Your task to perform on an android device: Search for sushi restaurants on Maps Image 0: 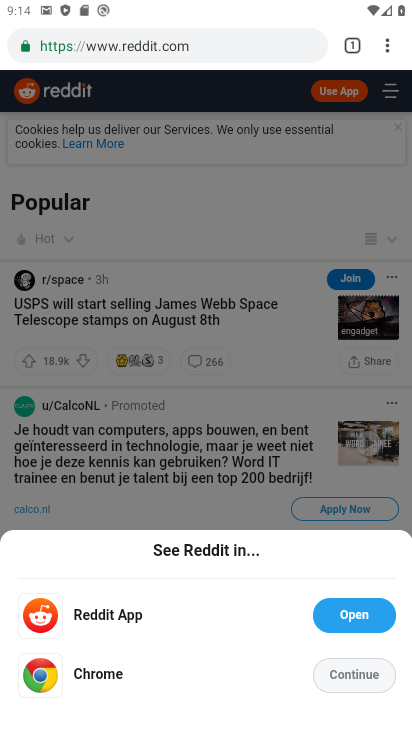
Step 0: press home button
Your task to perform on an android device: Search for sushi restaurants on Maps Image 1: 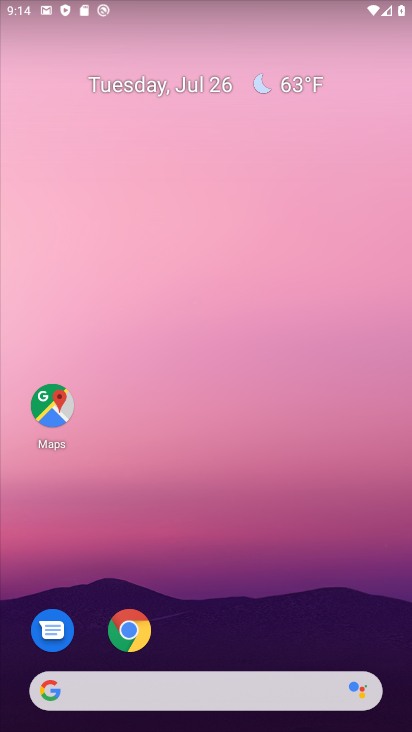
Step 1: click (52, 407)
Your task to perform on an android device: Search for sushi restaurants on Maps Image 2: 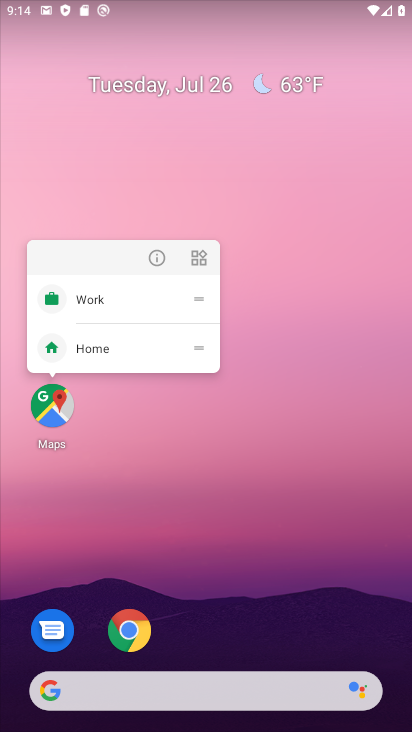
Step 2: click (238, 453)
Your task to perform on an android device: Search for sushi restaurants on Maps Image 3: 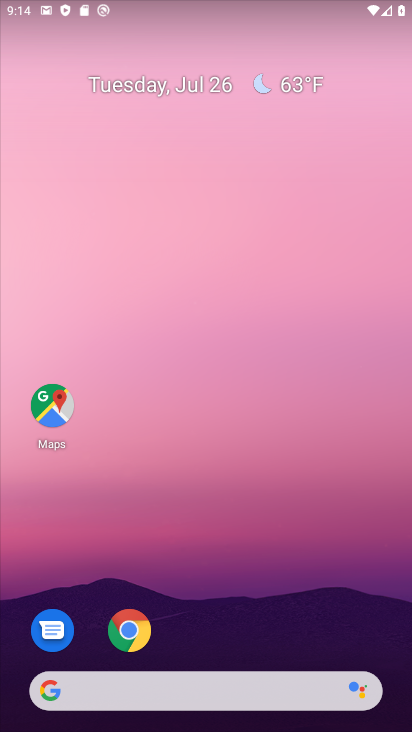
Step 3: click (48, 405)
Your task to perform on an android device: Search for sushi restaurants on Maps Image 4: 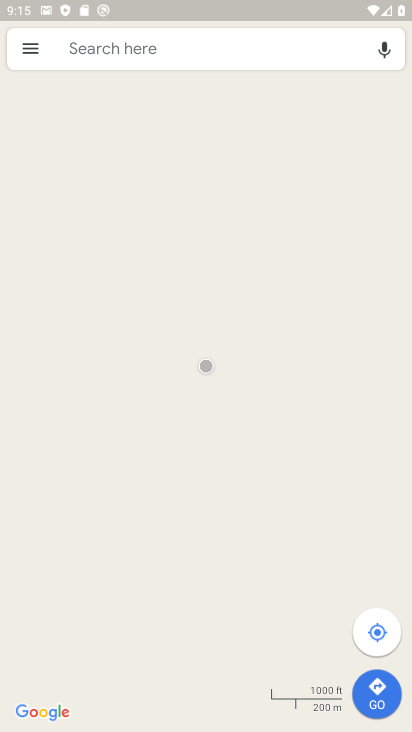
Step 4: click (121, 44)
Your task to perform on an android device: Search for sushi restaurants on Maps Image 5: 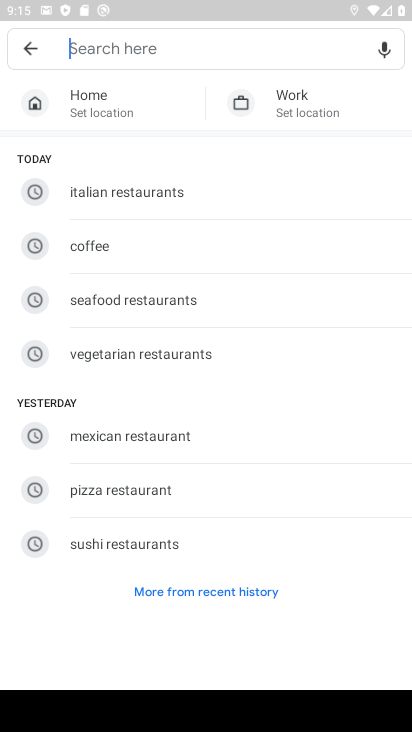
Step 5: type "sushi"
Your task to perform on an android device: Search for sushi restaurants on Maps Image 6: 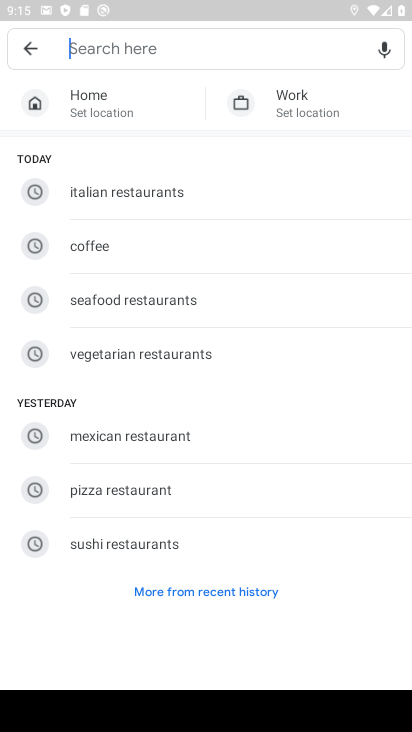
Step 6: click (117, 531)
Your task to perform on an android device: Search for sushi restaurants on Maps Image 7: 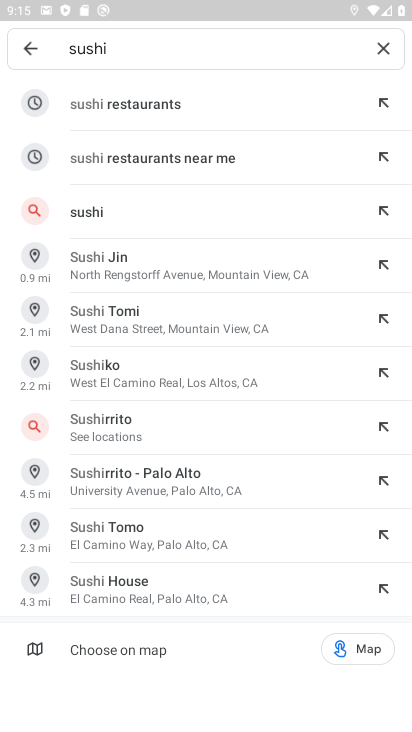
Step 7: click (168, 104)
Your task to perform on an android device: Search for sushi restaurants on Maps Image 8: 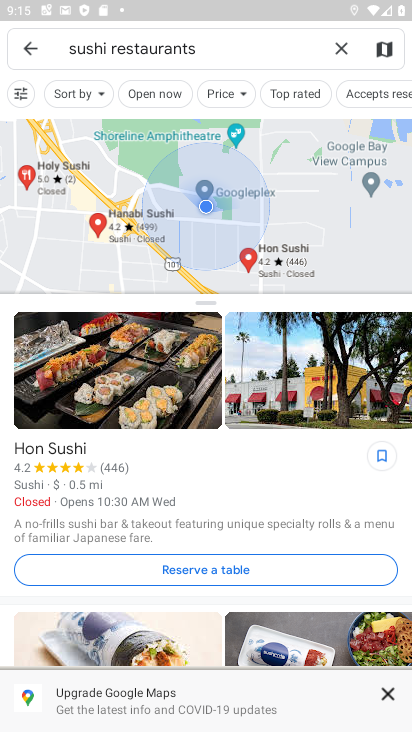
Step 8: task complete